Your task to perform on an android device: check google app version Image 0: 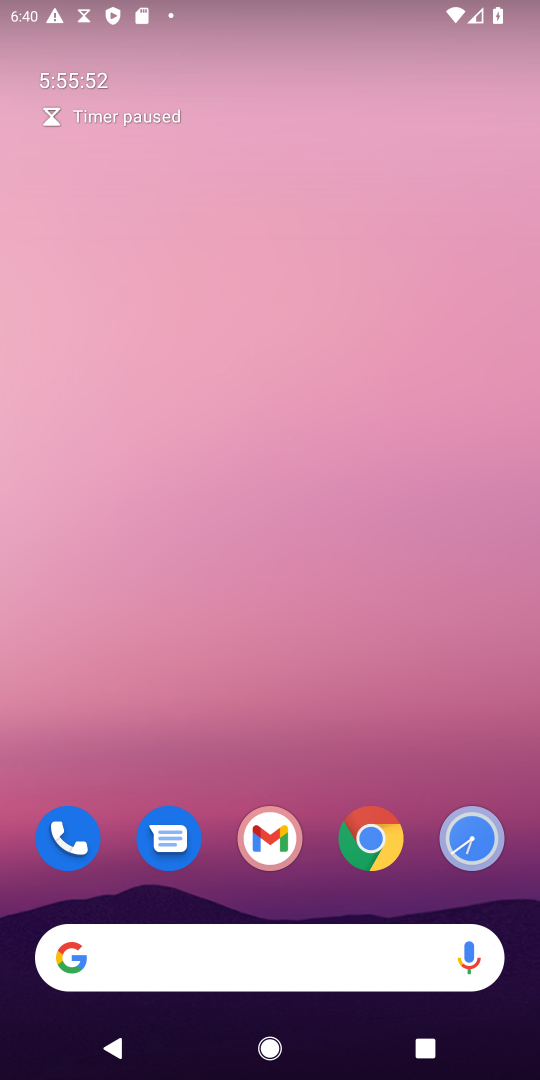
Step 0: press home button
Your task to perform on an android device: check google app version Image 1: 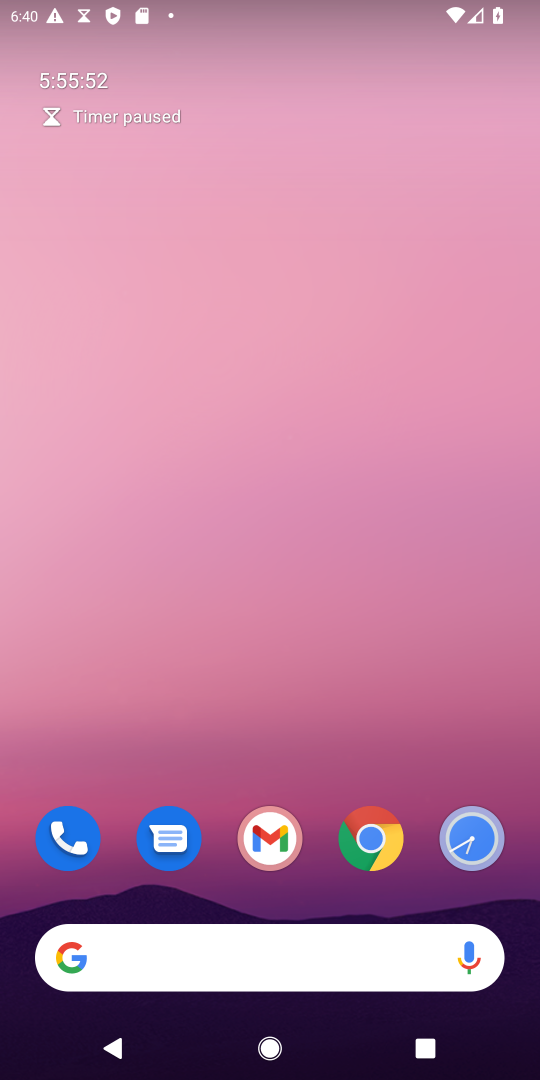
Step 1: drag from (338, 686) to (518, 479)
Your task to perform on an android device: check google app version Image 2: 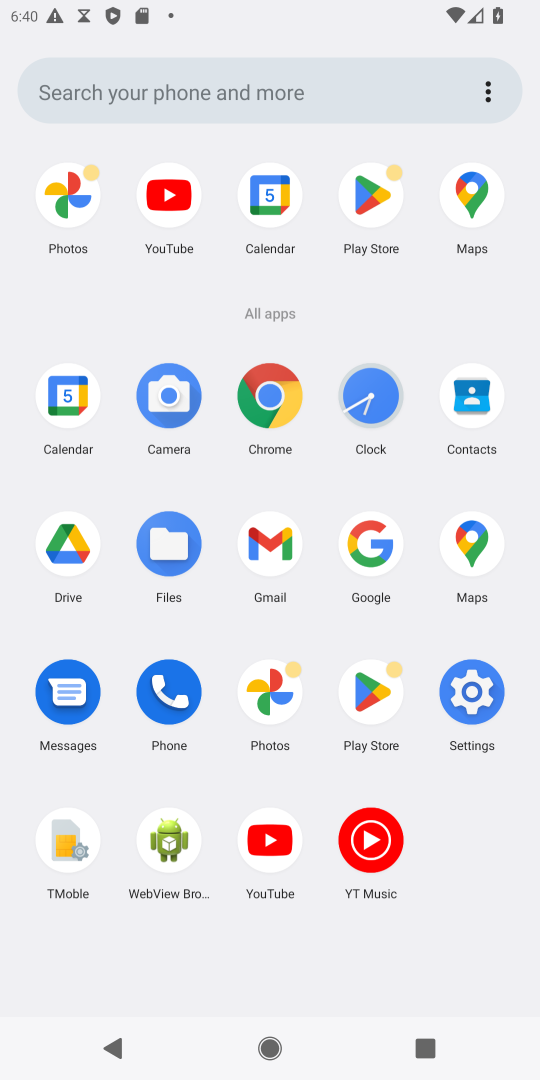
Step 2: drag from (360, 534) to (512, 14)
Your task to perform on an android device: check google app version Image 3: 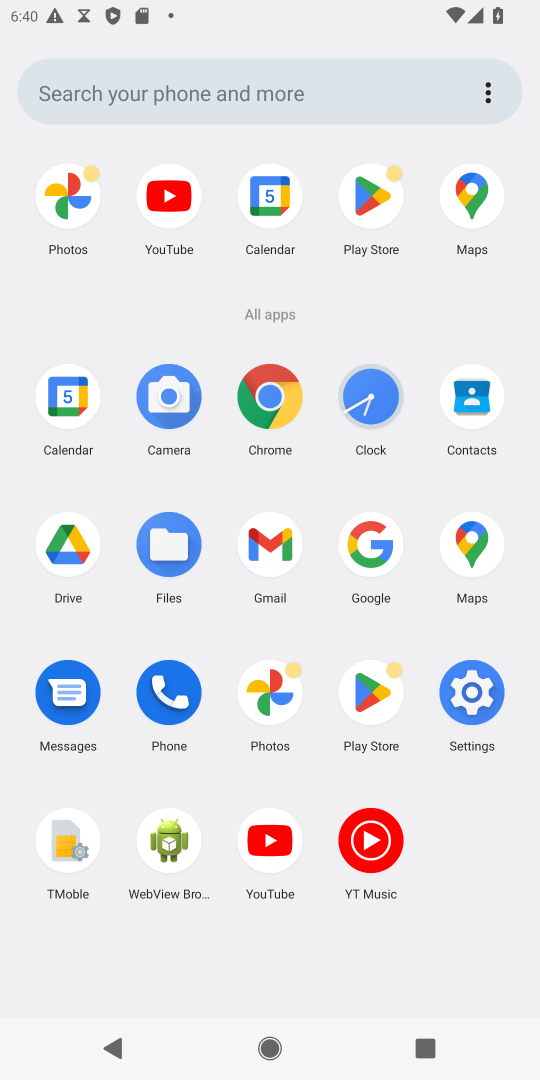
Step 3: click (373, 537)
Your task to perform on an android device: check google app version Image 4: 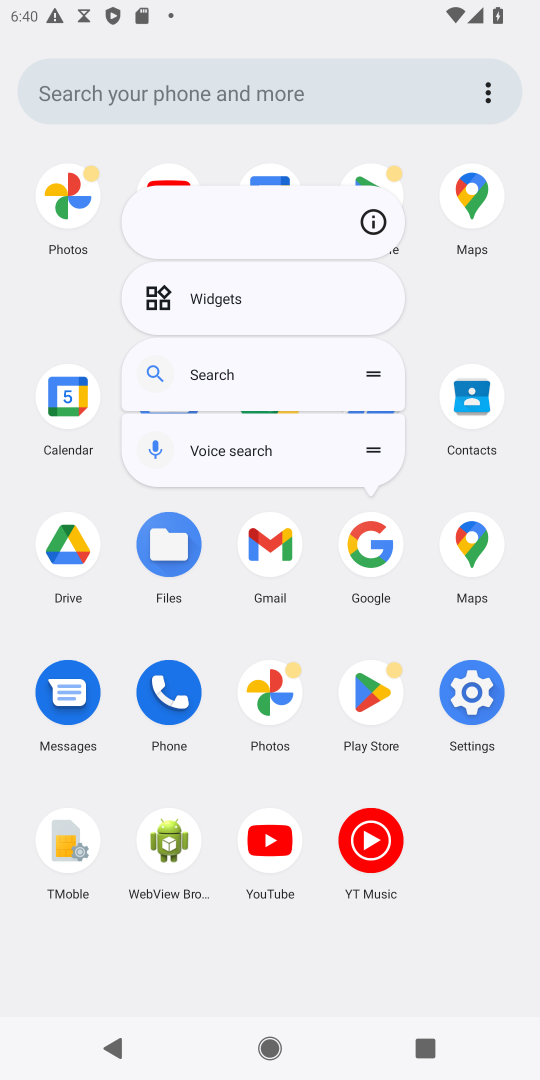
Step 4: click (369, 225)
Your task to perform on an android device: check google app version Image 5: 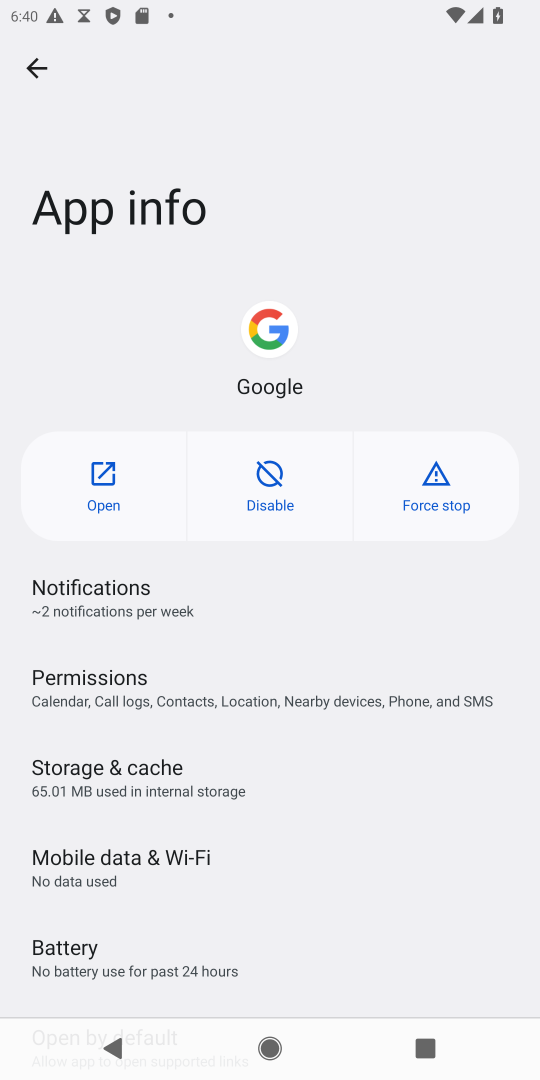
Step 5: task complete